Your task to perform on an android device: Open accessibility settings Image 0: 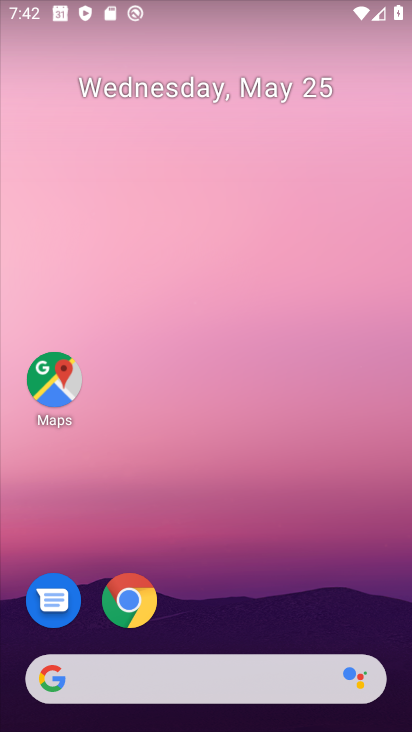
Step 0: drag from (229, 543) to (197, 100)
Your task to perform on an android device: Open accessibility settings Image 1: 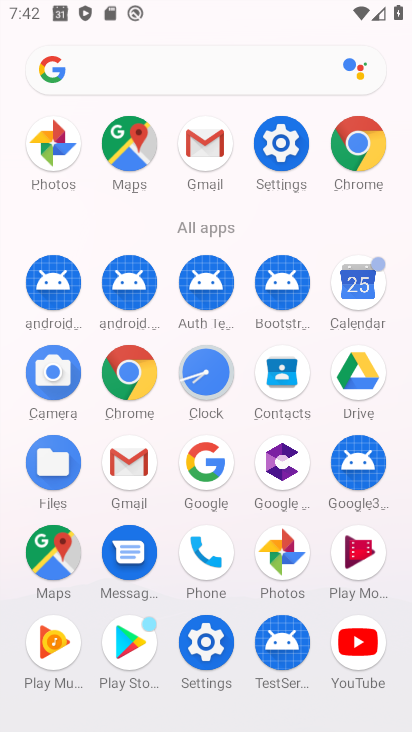
Step 1: click (263, 132)
Your task to perform on an android device: Open accessibility settings Image 2: 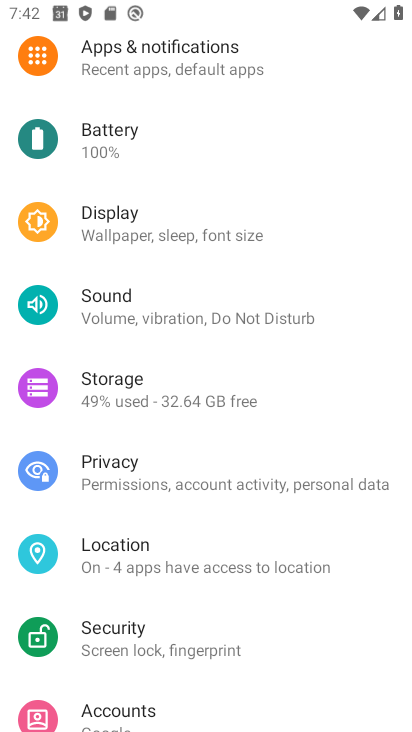
Step 2: drag from (151, 624) to (217, 141)
Your task to perform on an android device: Open accessibility settings Image 3: 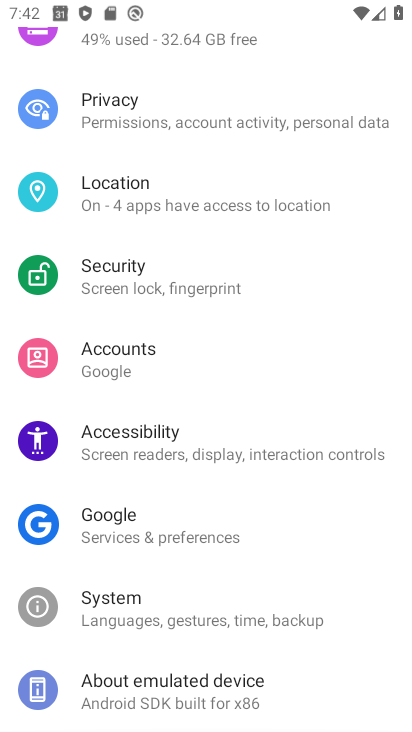
Step 3: drag from (174, 546) to (181, 216)
Your task to perform on an android device: Open accessibility settings Image 4: 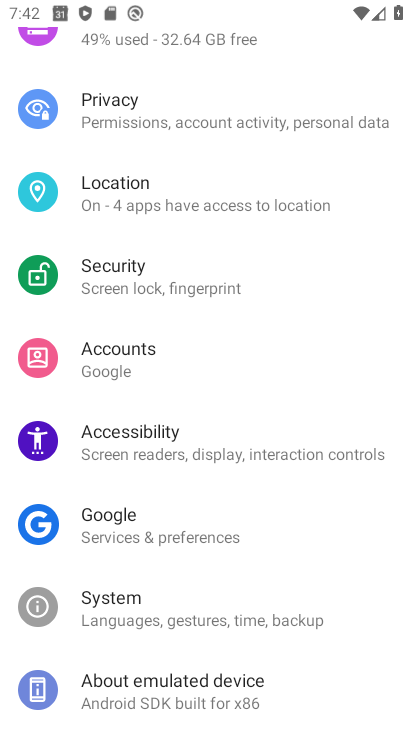
Step 4: click (134, 453)
Your task to perform on an android device: Open accessibility settings Image 5: 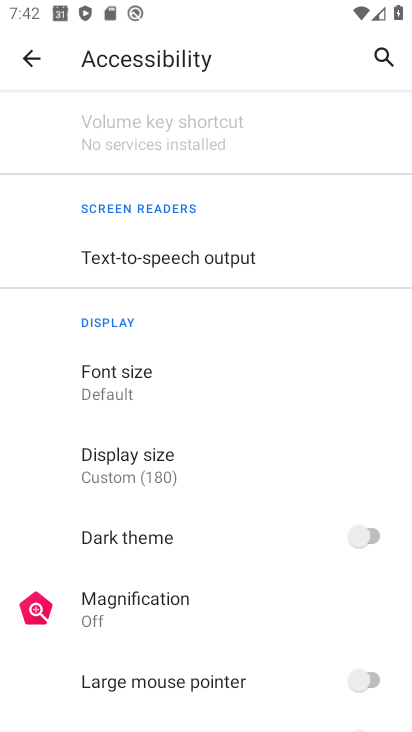
Step 5: task complete